Your task to perform on an android device: open a bookmark in the chrome app Image 0: 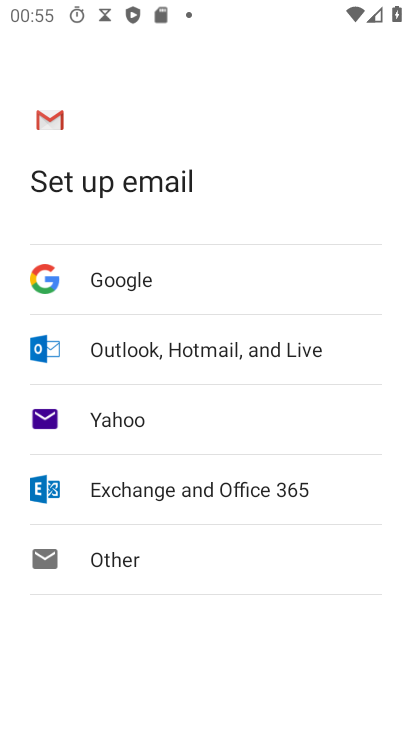
Step 0: press back button
Your task to perform on an android device: open a bookmark in the chrome app Image 1: 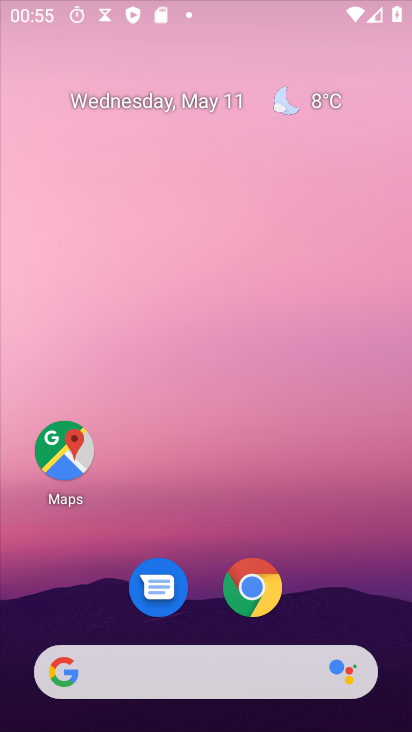
Step 1: drag from (320, 609) to (97, 17)
Your task to perform on an android device: open a bookmark in the chrome app Image 2: 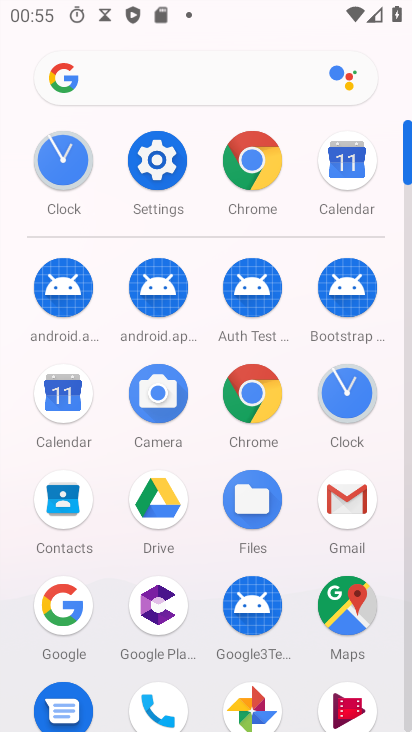
Step 2: click (246, 166)
Your task to perform on an android device: open a bookmark in the chrome app Image 3: 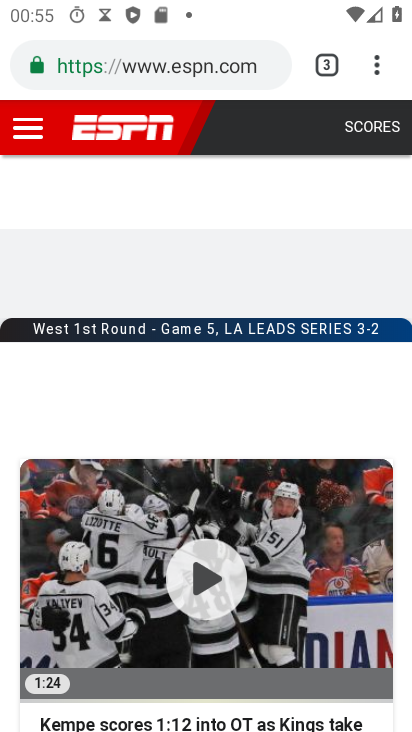
Step 3: drag from (374, 57) to (146, 252)
Your task to perform on an android device: open a bookmark in the chrome app Image 4: 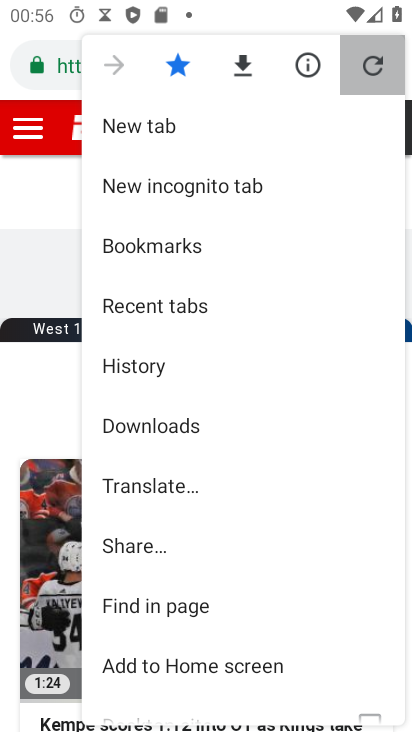
Step 4: click (147, 246)
Your task to perform on an android device: open a bookmark in the chrome app Image 5: 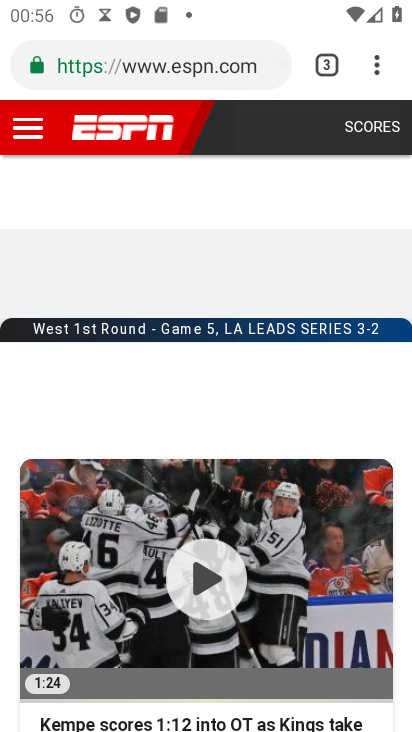
Step 5: click (150, 239)
Your task to perform on an android device: open a bookmark in the chrome app Image 6: 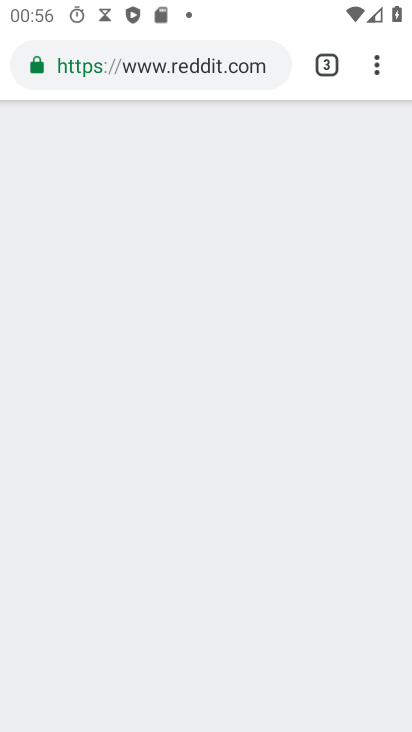
Step 6: task complete